Your task to perform on an android device: Do I have any events this weekend? Image 0: 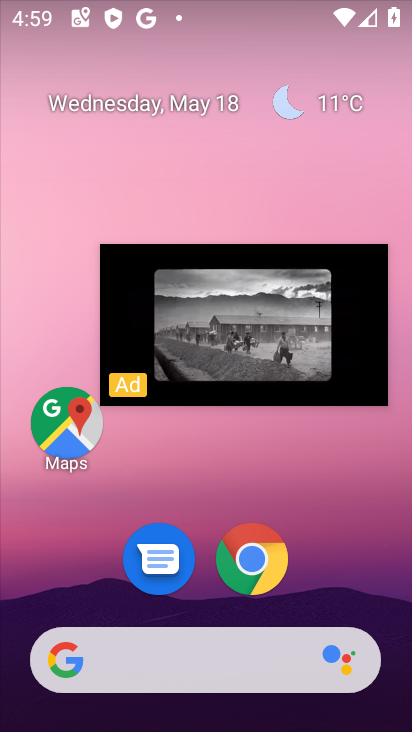
Step 0: click (263, 313)
Your task to perform on an android device: Do I have any events this weekend? Image 1: 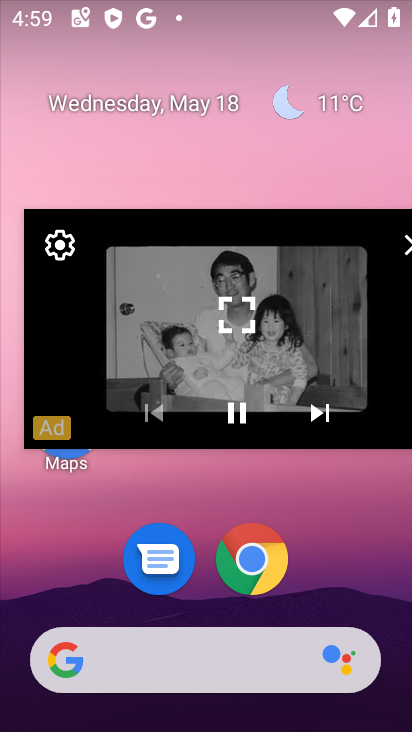
Step 1: click (242, 320)
Your task to perform on an android device: Do I have any events this weekend? Image 2: 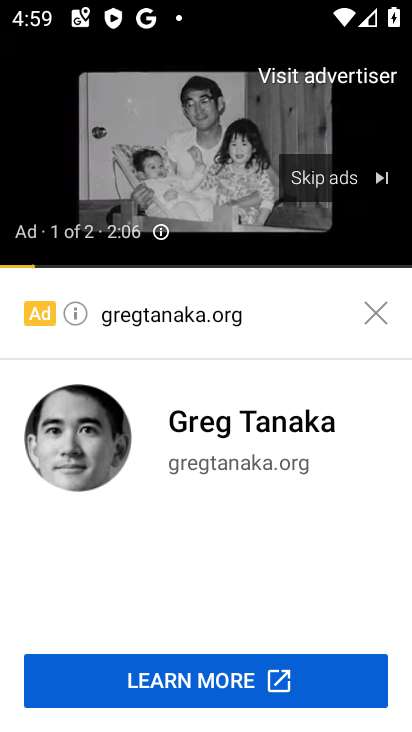
Step 2: click (204, 163)
Your task to perform on an android device: Do I have any events this weekend? Image 3: 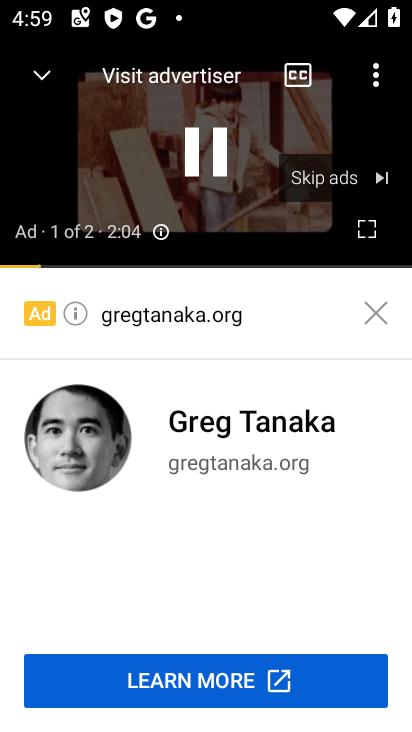
Step 3: click (204, 163)
Your task to perform on an android device: Do I have any events this weekend? Image 4: 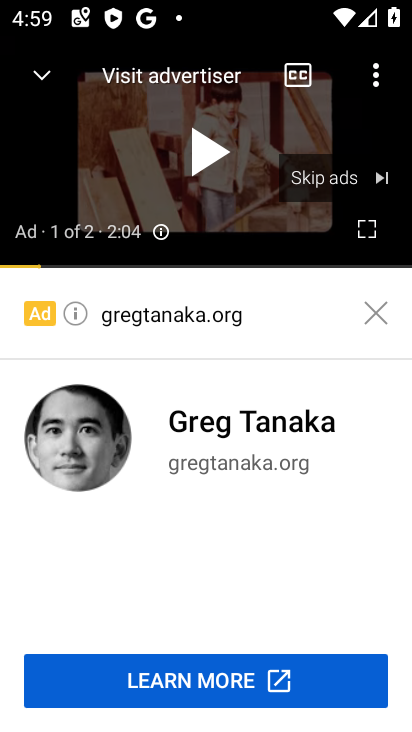
Step 4: press home button
Your task to perform on an android device: Do I have any events this weekend? Image 5: 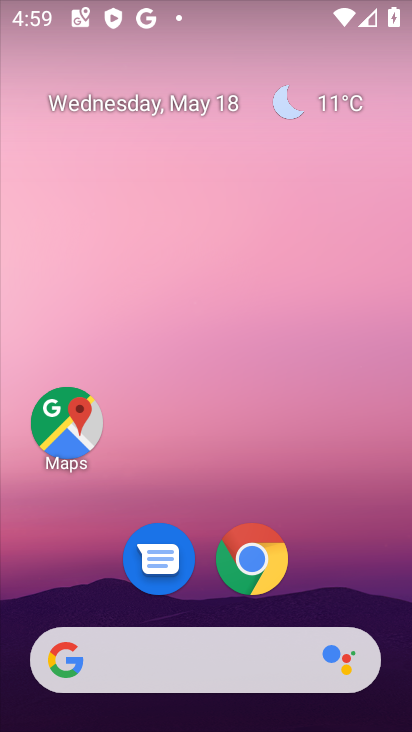
Step 5: drag from (206, 469) to (263, 51)
Your task to perform on an android device: Do I have any events this weekend? Image 6: 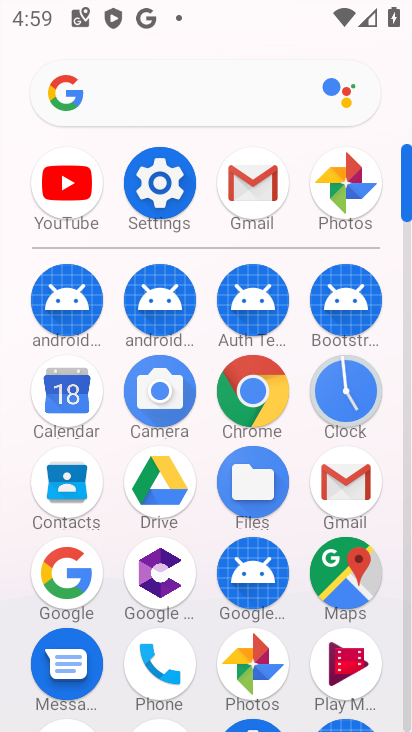
Step 6: click (48, 413)
Your task to perform on an android device: Do I have any events this weekend? Image 7: 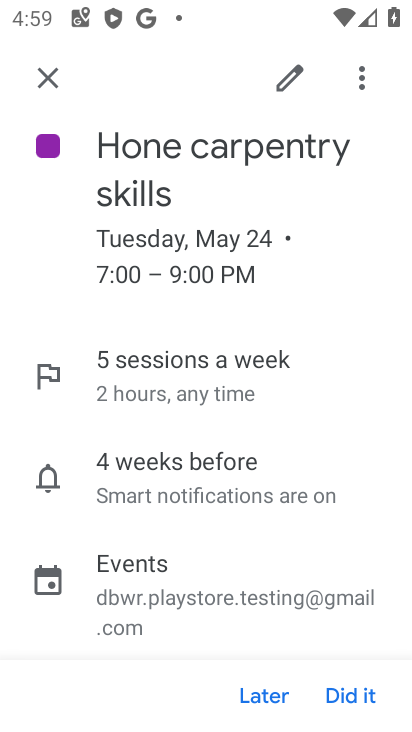
Step 7: click (43, 72)
Your task to perform on an android device: Do I have any events this weekend? Image 8: 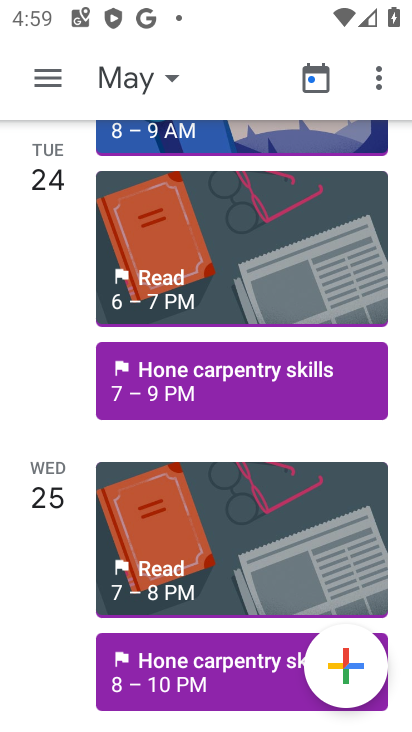
Step 8: drag from (221, 237) to (203, 678)
Your task to perform on an android device: Do I have any events this weekend? Image 9: 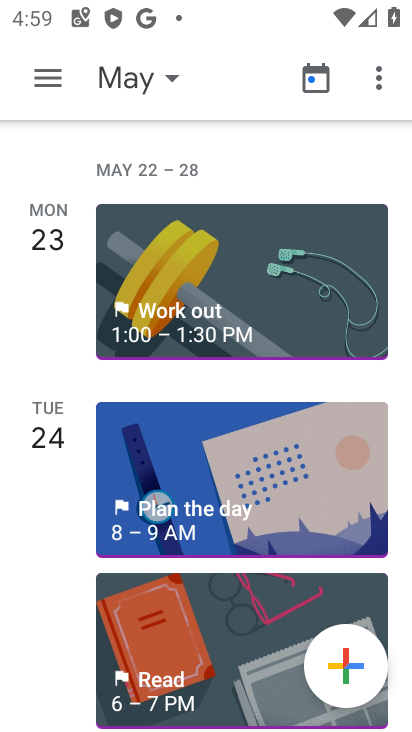
Step 9: drag from (181, 354) to (180, 677)
Your task to perform on an android device: Do I have any events this weekend? Image 10: 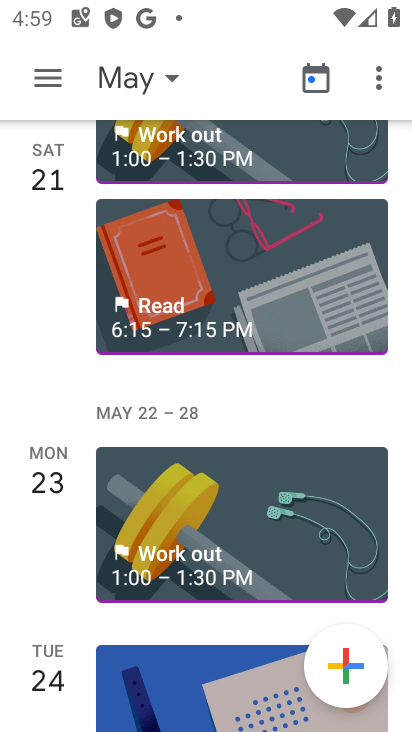
Step 10: drag from (171, 276) to (171, 580)
Your task to perform on an android device: Do I have any events this weekend? Image 11: 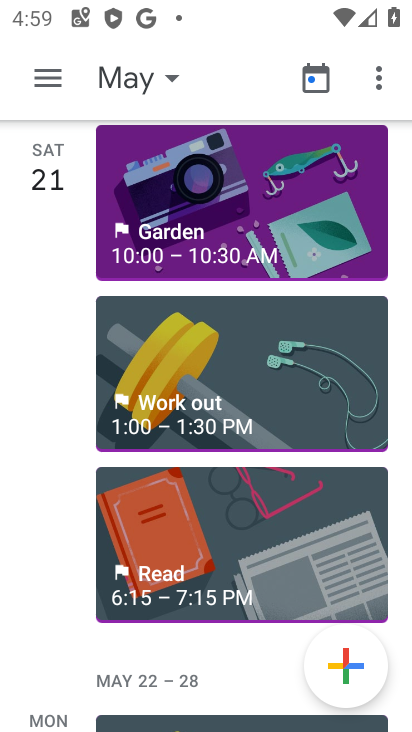
Step 11: click (159, 377)
Your task to perform on an android device: Do I have any events this weekend? Image 12: 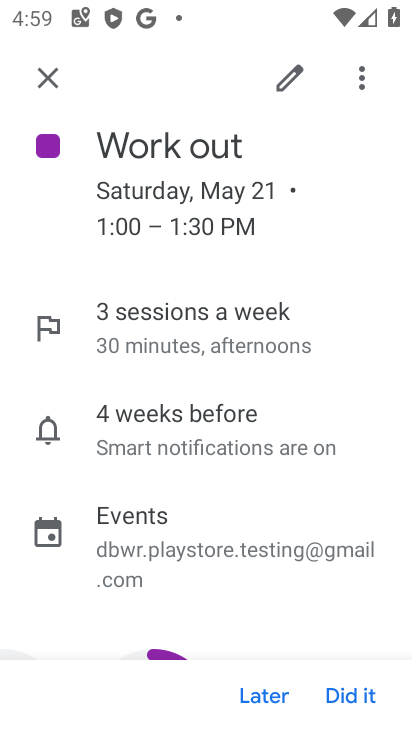
Step 12: task complete